Your task to perform on an android device: toggle location history Image 0: 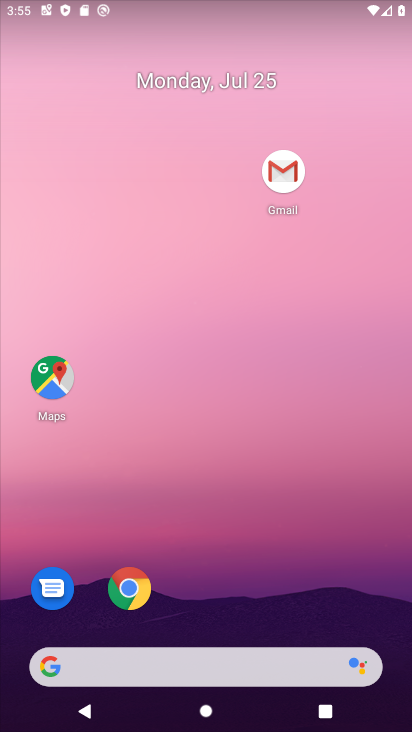
Step 0: drag from (304, 568) to (313, 1)
Your task to perform on an android device: toggle location history Image 1: 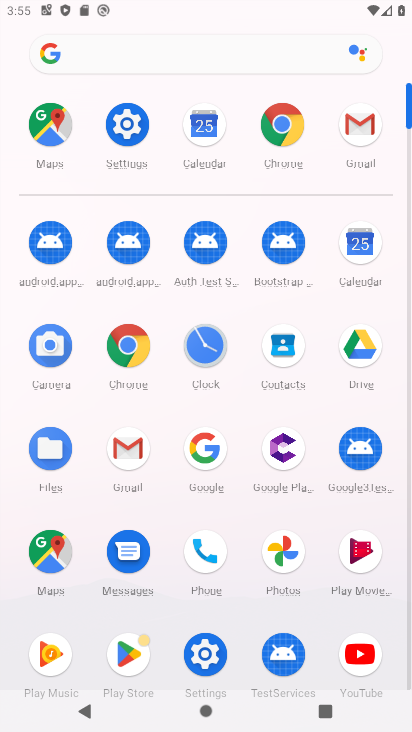
Step 1: click (123, 122)
Your task to perform on an android device: toggle location history Image 2: 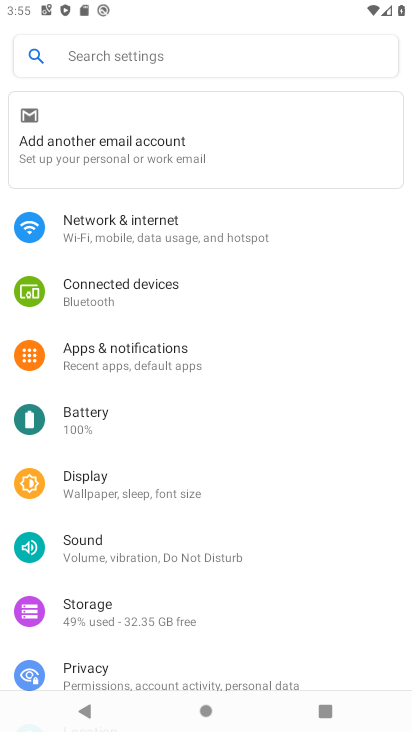
Step 2: drag from (300, 687) to (313, 181)
Your task to perform on an android device: toggle location history Image 3: 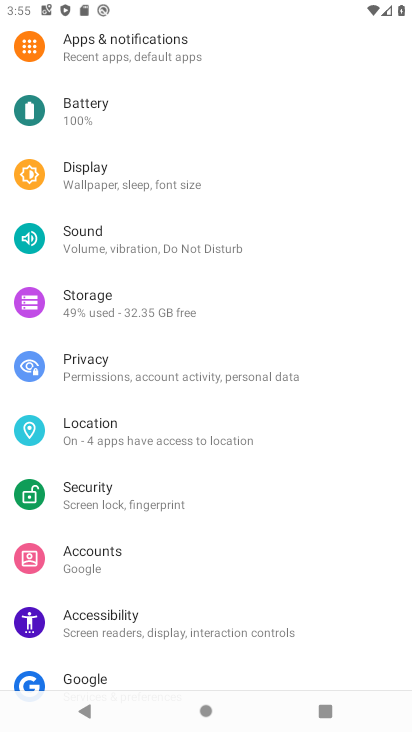
Step 3: click (107, 440)
Your task to perform on an android device: toggle location history Image 4: 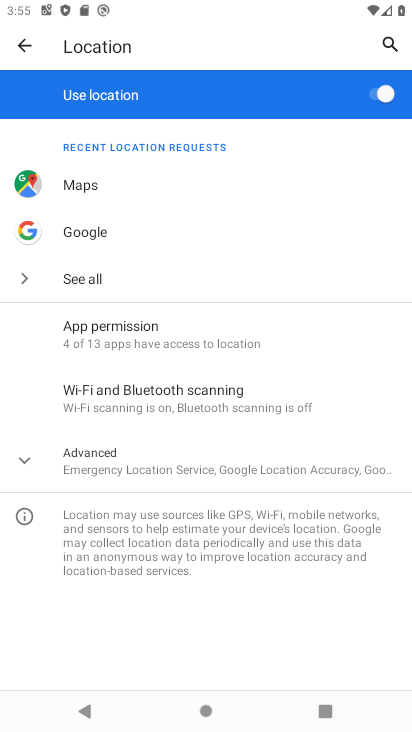
Step 4: click (122, 457)
Your task to perform on an android device: toggle location history Image 5: 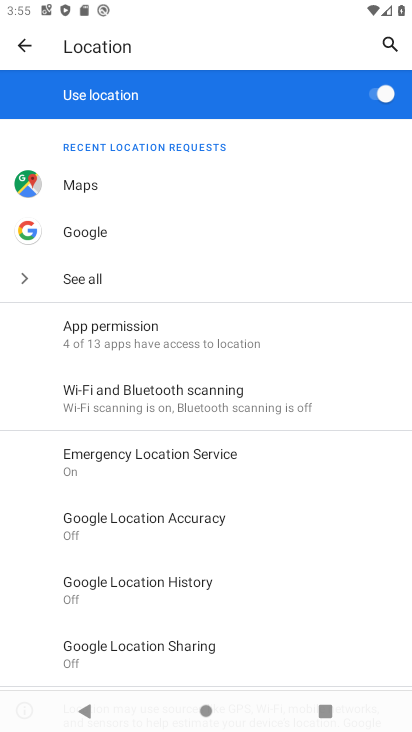
Step 5: click (203, 580)
Your task to perform on an android device: toggle location history Image 6: 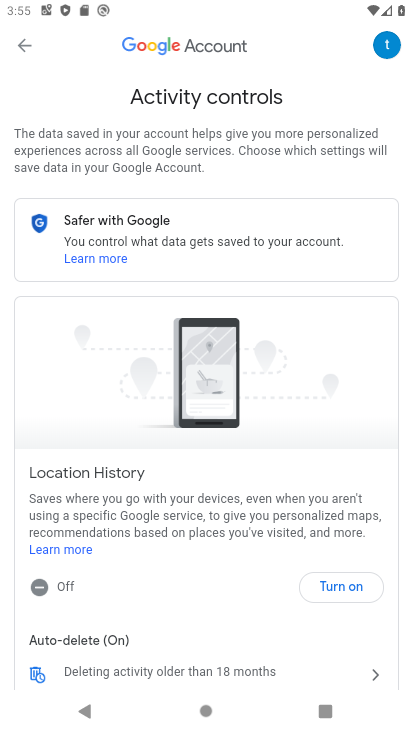
Step 6: click (341, 585)
Your task to perform on an android device: toggle location history Image 7: 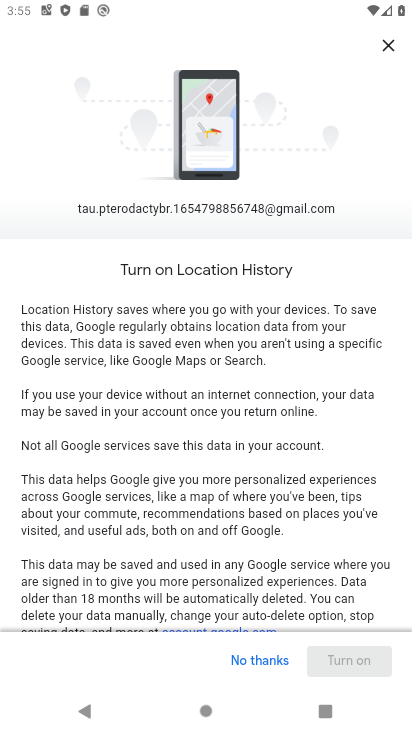
Step 7: drag from (318, 572) to (316, 74)
Your task to perform on an android device: toggle location history Image 8: 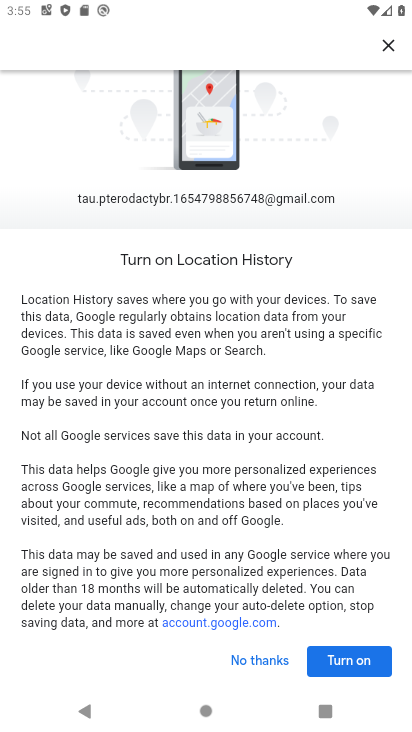
Step 8: click (346, 662)
Your task to perform on an android device: toggle location history Image 9: 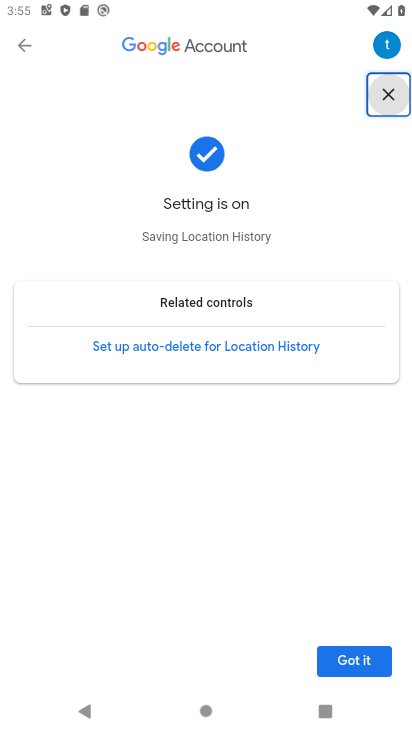
Step 9: task complete